Your task to perform on an android device: manage bookmarks in the chrome app Image 0: 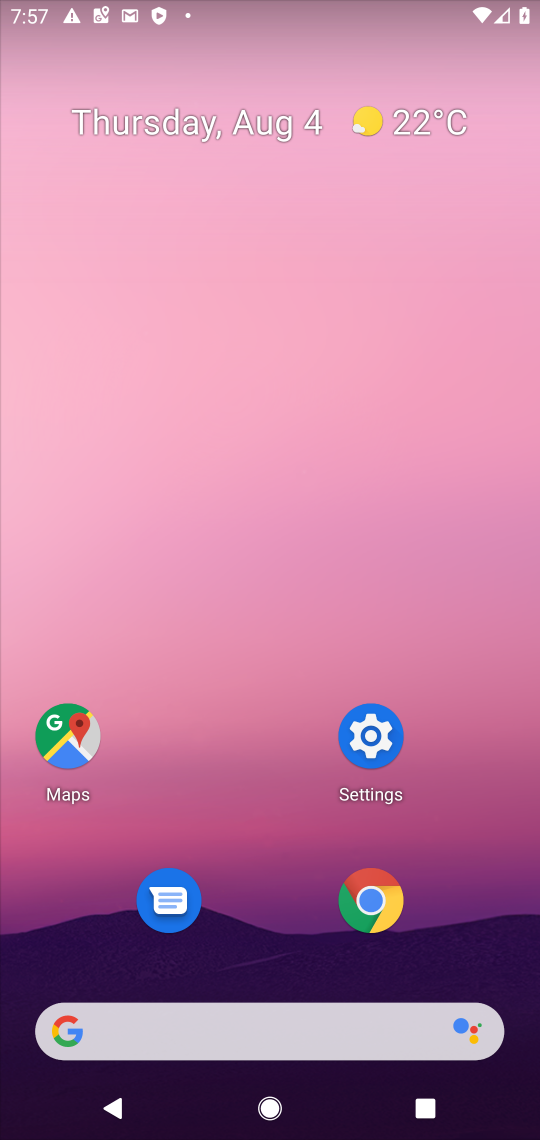
Step 0: click (379, 900)
Your task to perform on an android device: manage bookmarks in the chrome app Image 1: 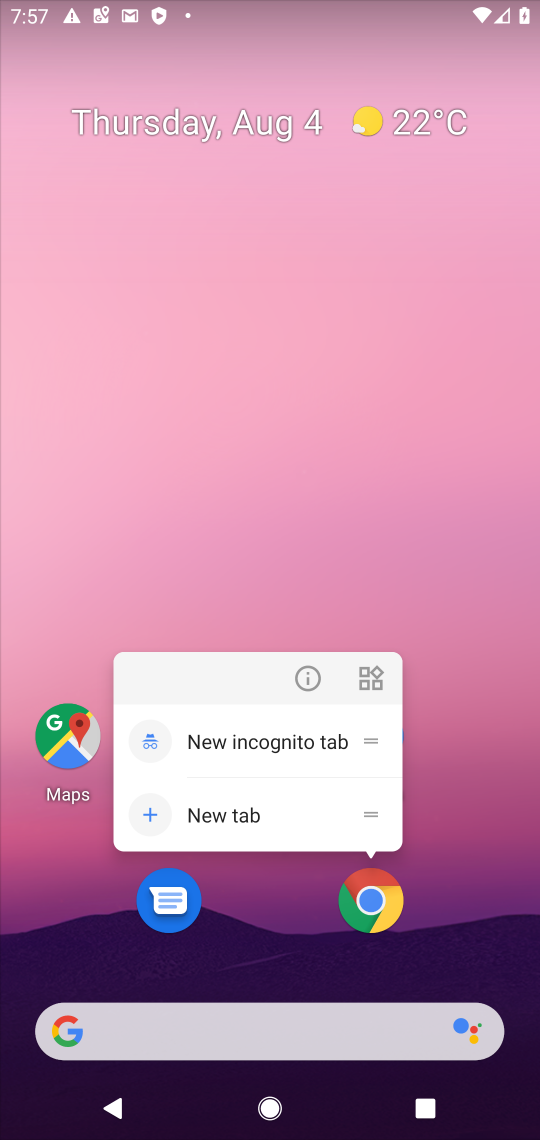
Step 1: click (379, 904)
Your task to perform on an android device: manage bookmarks in the chrome app Image 2: 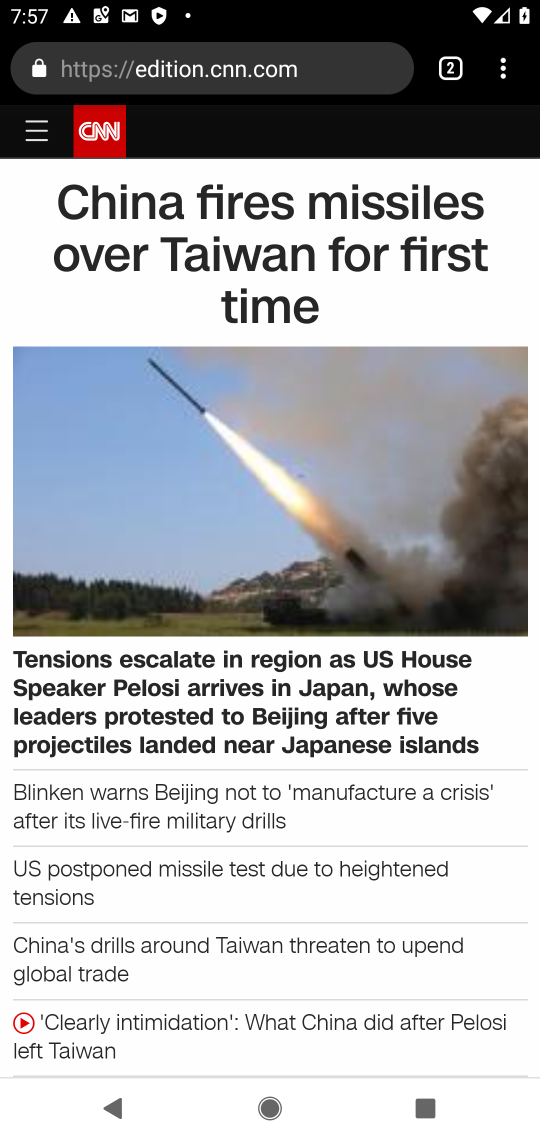
Step 2: drag from (504, 64) to (338, 349)
Your task to perform on an android device: manage bookmarks in the chrome app Image 3: 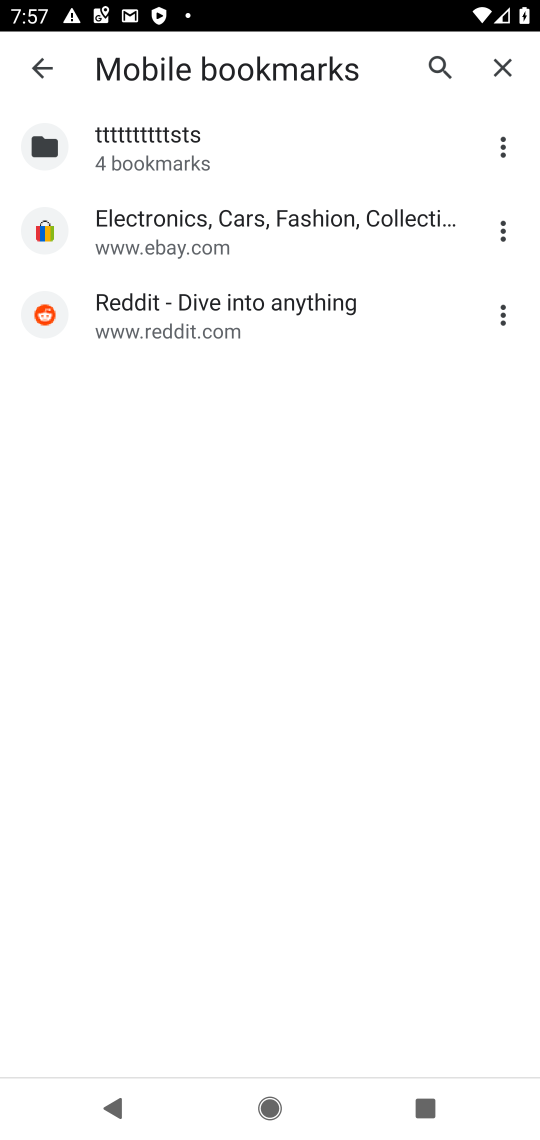
Step 3: click (489, 227)
Your task to perform on an android device: manage bookmarks in the chrome app Image 4: 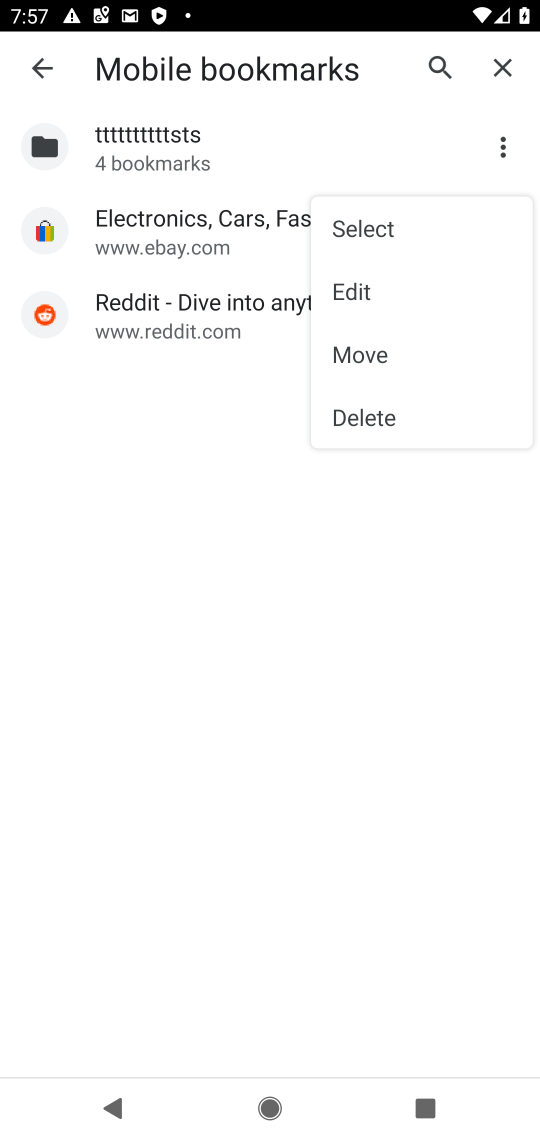
Step 4: click (365, 349)
Your task to perform on an android device: manage bookmarks in the chrome app Image 5: 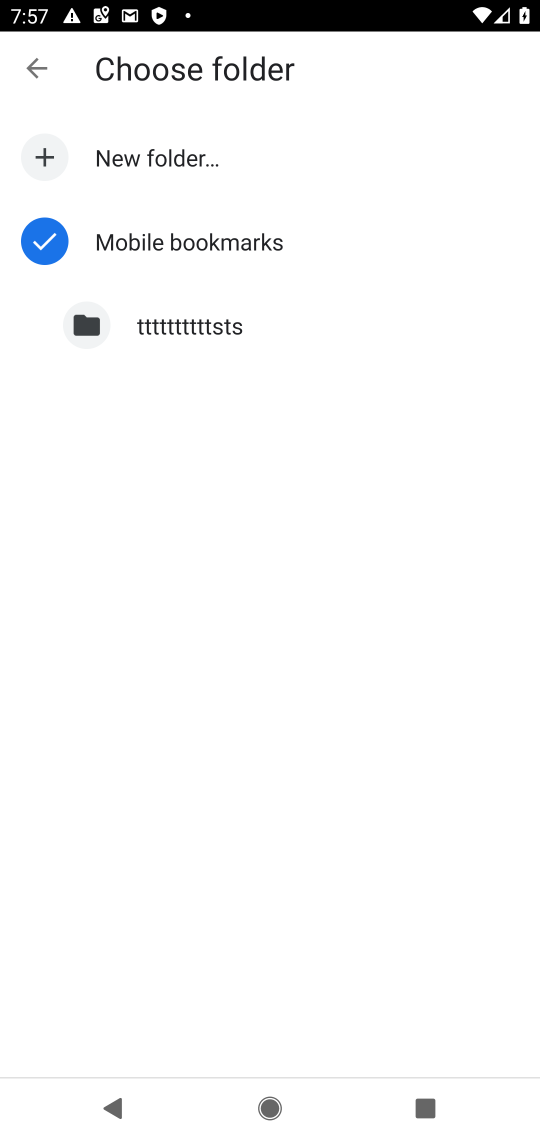
Step 5: click (144, 322)
Your task to perform on an android device: manage bookmarks in the chrome app Image 6: 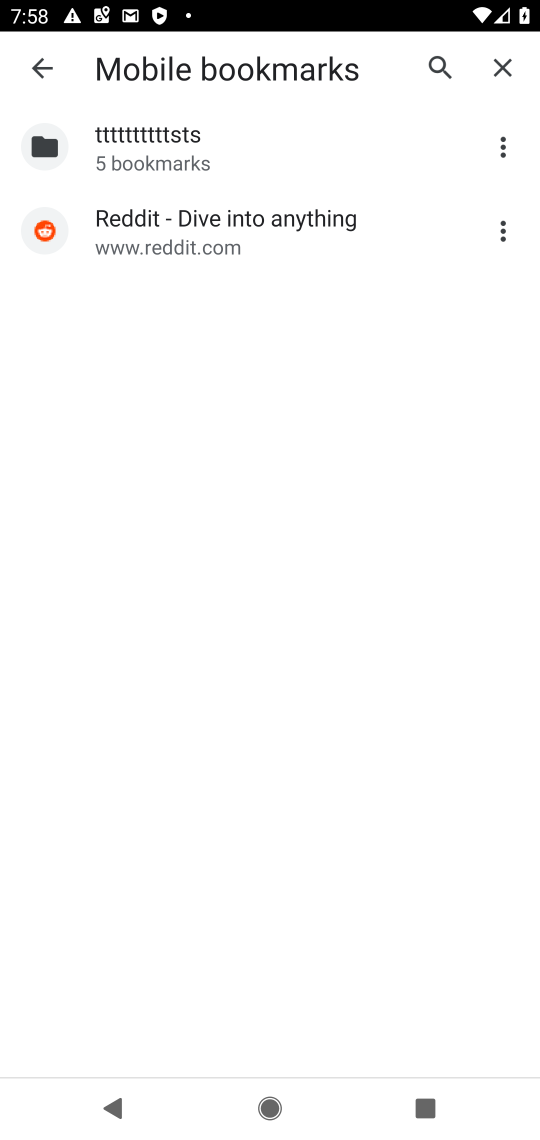
Step 6: task complete